Your task to perform on an android device: turn off airplane mode Image 0: 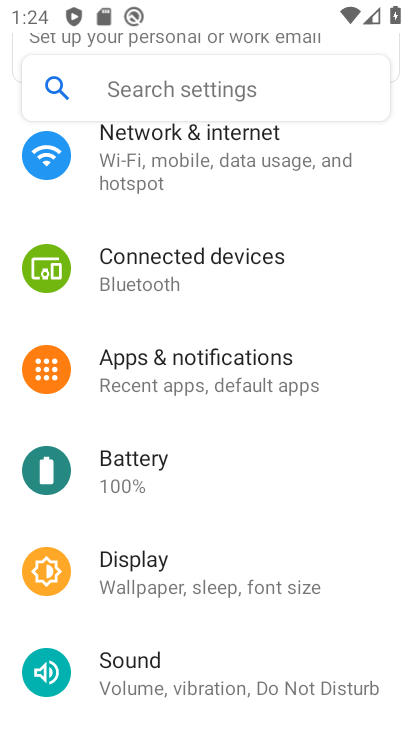
Step 0: press home button
Your task to perform on an android device: turn off airplane mode Image 1: 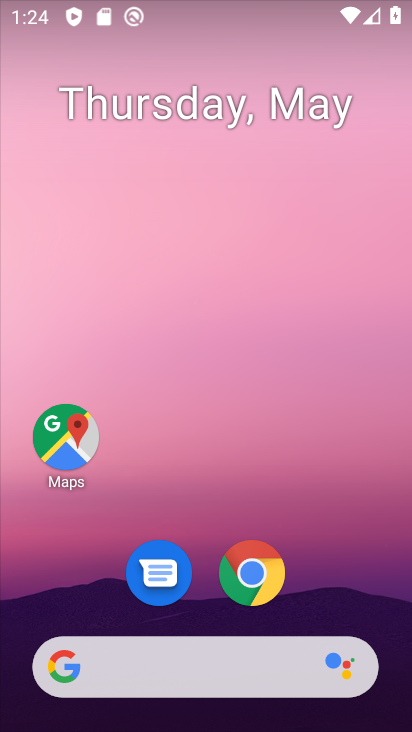
Step 1: drag from (291, 114) to (284, 560)
Your task to perform on an android device: turn off airplane mode Image 2: 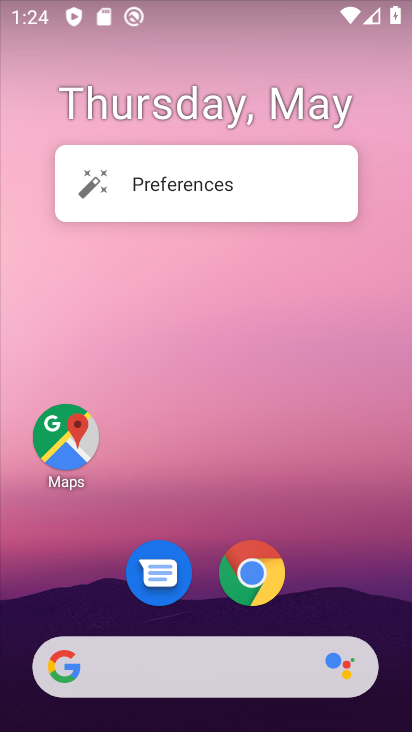
Step 2: click (255, 33)
Your task to perform on an android device: turn off airplane mode Image 3: 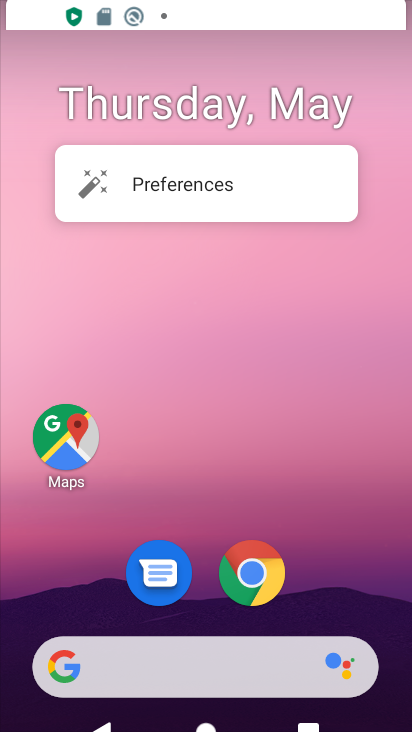
Step 3: task complete